Your task to perform on an android device: Go to ESPN.com Image 0: 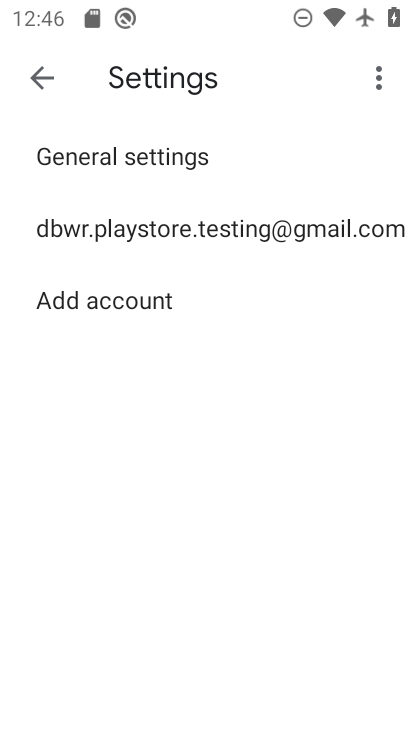
Step 0: press home button
Your task to perform on an android device: Go to ESPN.com Image 1: 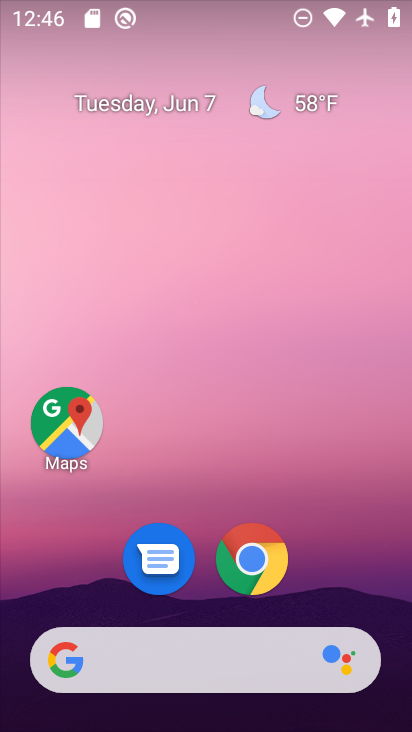
Step 1: click (253, 554)
Your task to perform on an android device: Go to ESPN.com Image 2: 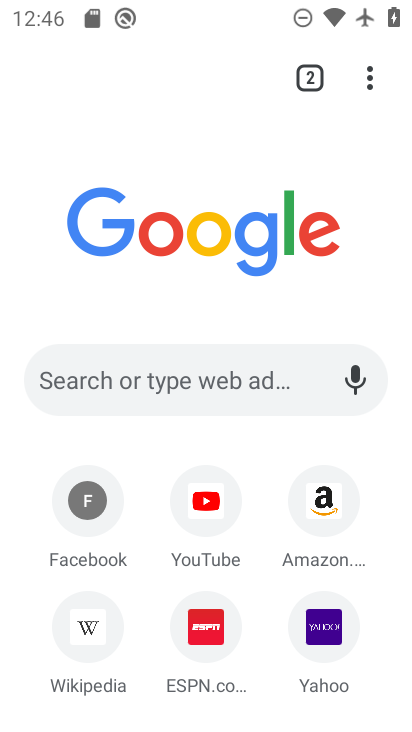
Step 2: click (142, 376)
Your task to perform on an android device: Go to ESPN.com Image 3: 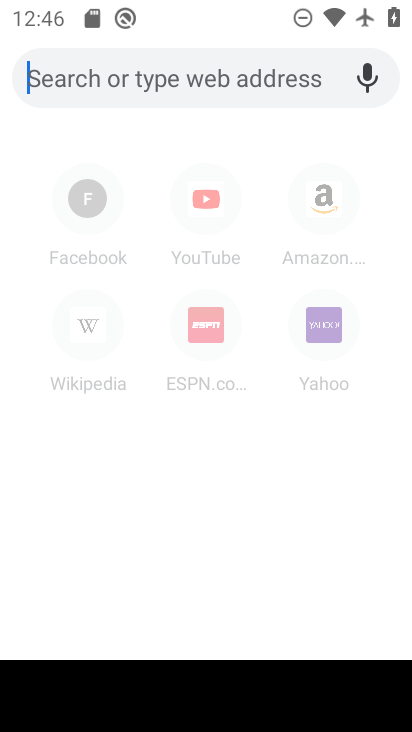
Step 3: type "espn.com"
Your task to perform on an android device: Go to ESPN.com Image 4: 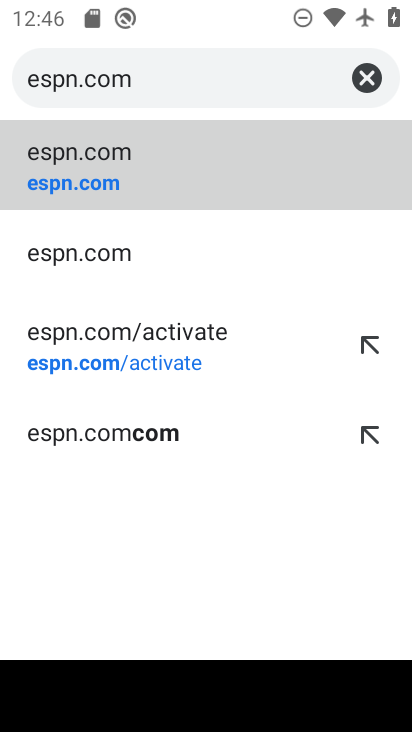
Step 4: click (100, 148)
Your task to perform on an android device: Go to ESPN.com Image 5: 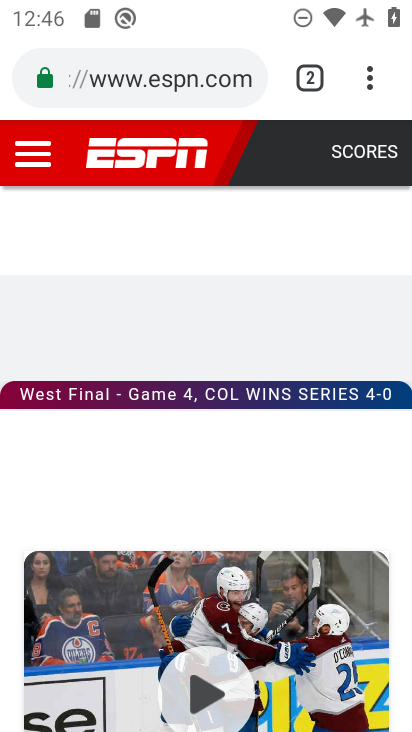
Step 5: task complete